Your task to perform on an android device: What's the weather going to be tomorrow? Image 0: 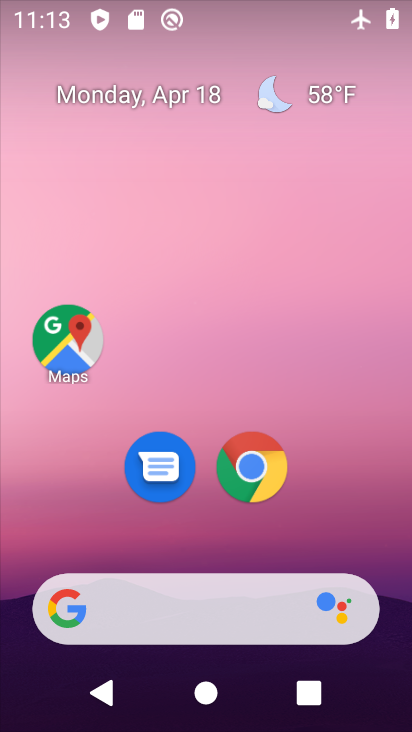
Step 0: click (202, 607)
Your task to perform on an android device: What's the weather going to be tomorrow? Image 1: 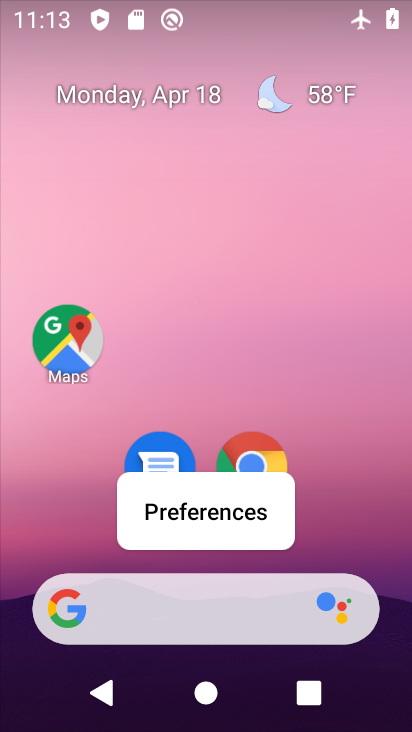
Step 1: click (191, 614)
Your task to perform on an android device: What's the weather going to be tomorrow? Image 2: 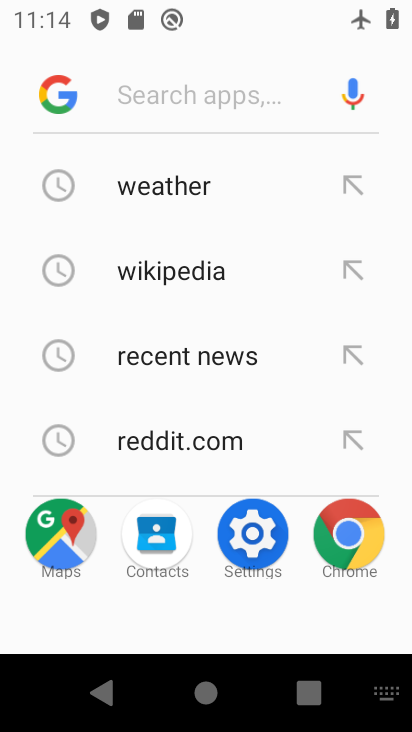
Step 2: type "what's the weather going to be tomorrow?google"
Your task to perform on an android device: What's the weather going to be tomorrow? Image 3: 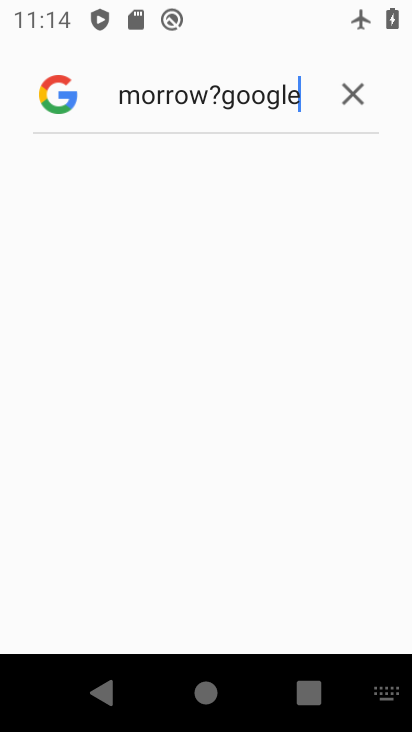
Step 3: task complete